Your task to perform on an android device: turn on location history Image 0: 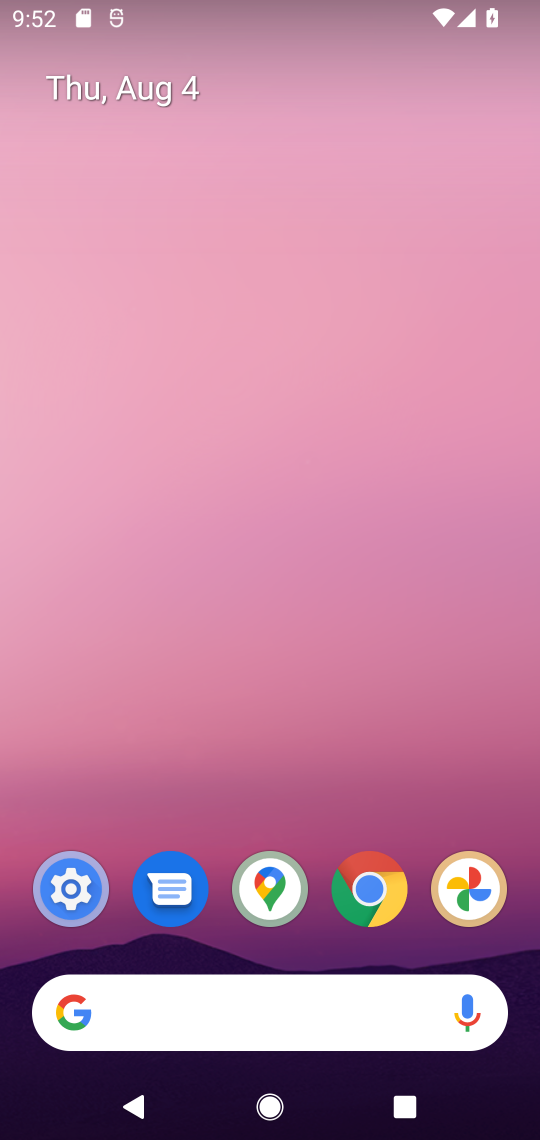
Step 0: press home button
Your task to perform on an android device: turn on location history Image 1: 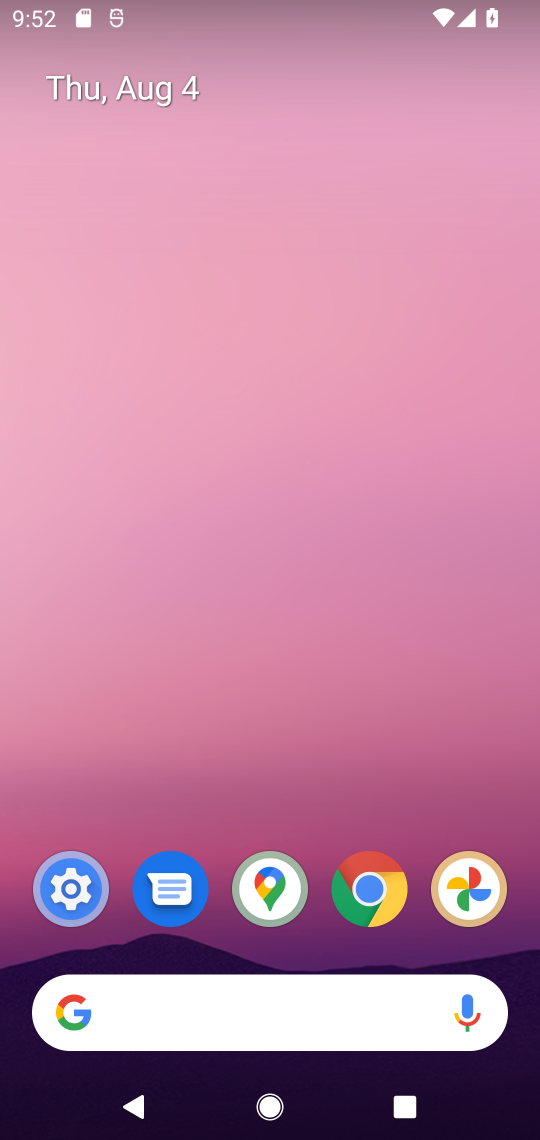
Step 1: drag from (317, 782) to (331, 231)
Your task to perform on an android device: turn on location history Image 2: 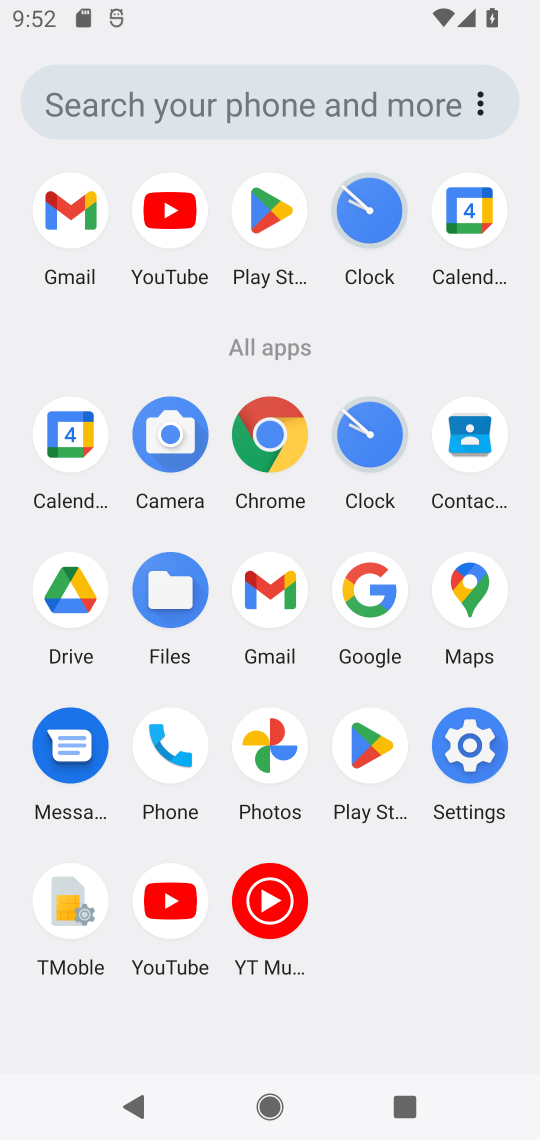
Step 2: click (466, 749)
Your task to perform on an android device: turn on location history Image 3: 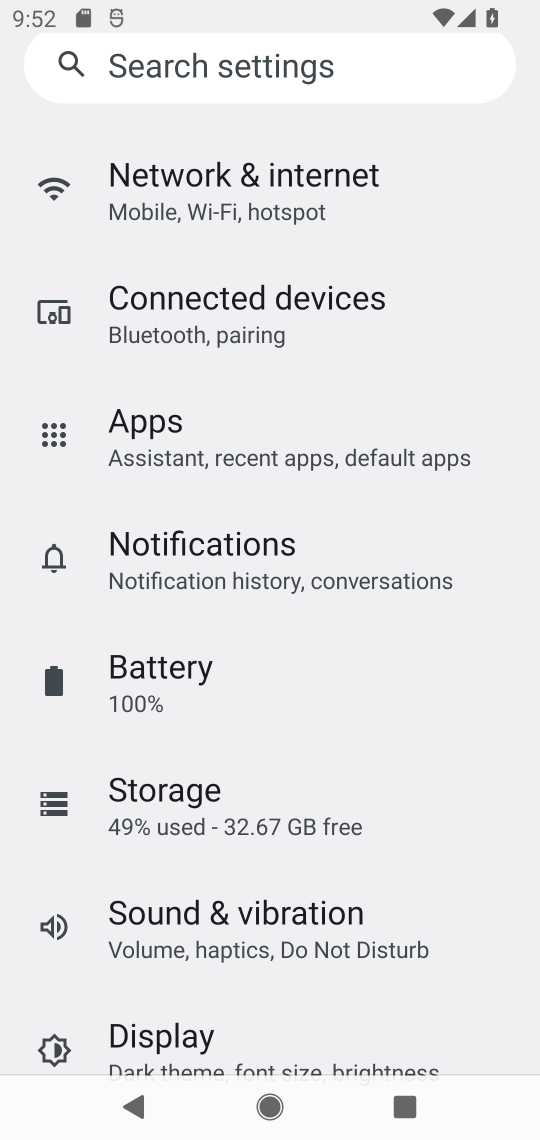
Step 3: drag from (461, 296) to (463, 619)
Your task to perform on an android device: turn on location history Image 4: 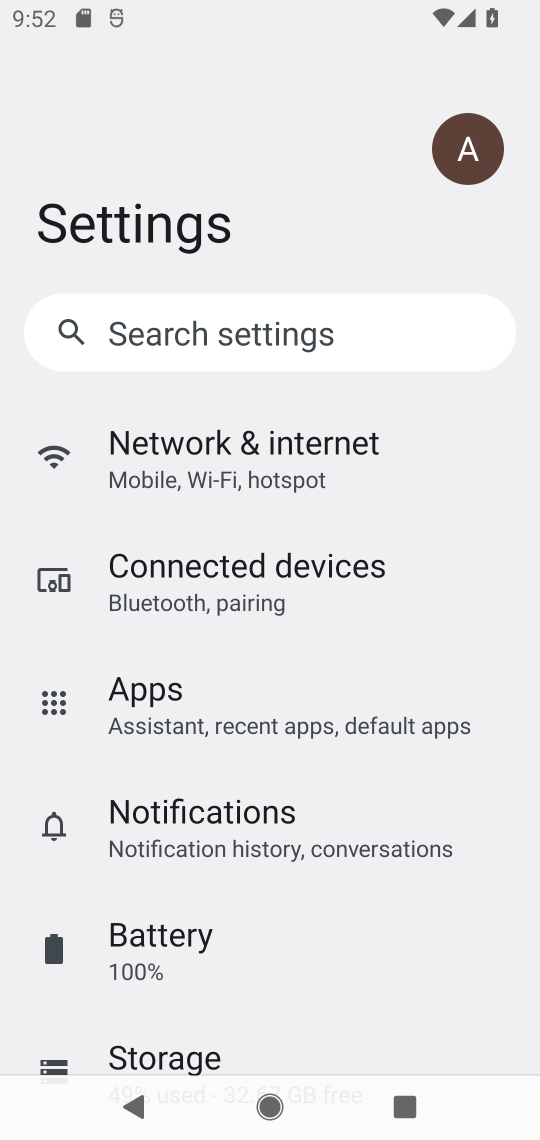
Step 4: drag from (481, 448) to (479, 782)
Your task to perform on an android device: turn on location history Image 5: 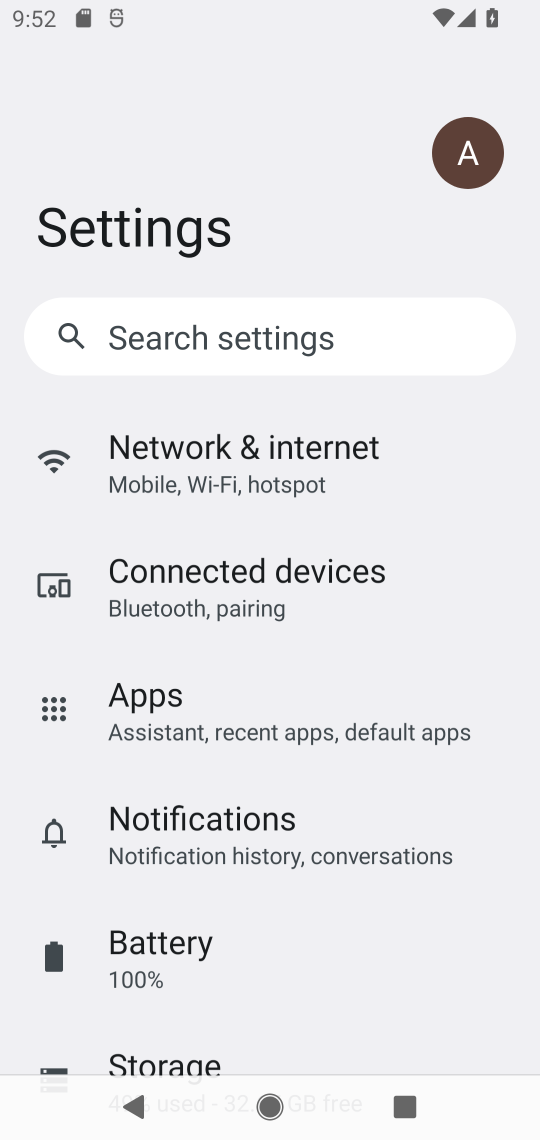
Step 5: drag from (484, 900) to (490, 650)
Your task to perform on an android device: turn on location history Image 6: 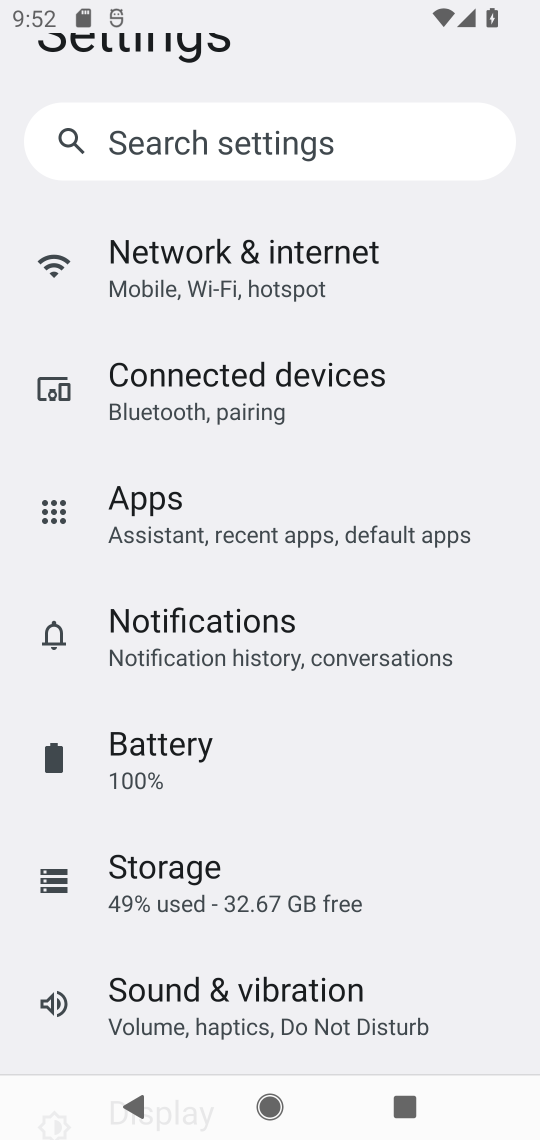
Step 6: drag from (475, 928) to (465, 714)
Your task to perform on an android device: turn on location history Image 7: 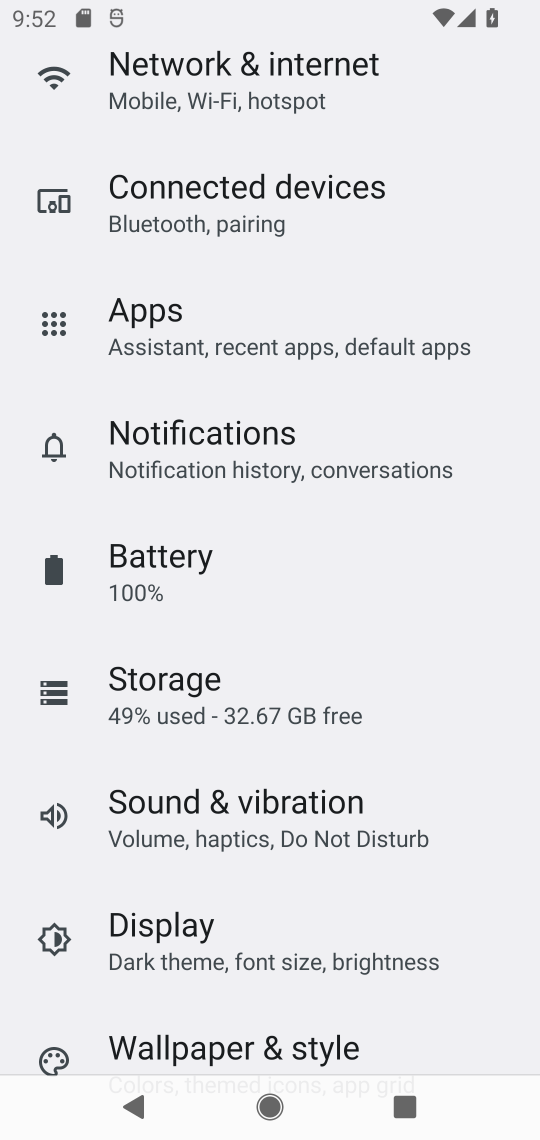
Step 7: drag from (446, 941) to (458, 722)
Your task to perform on an android device: turn on location history Image 8: 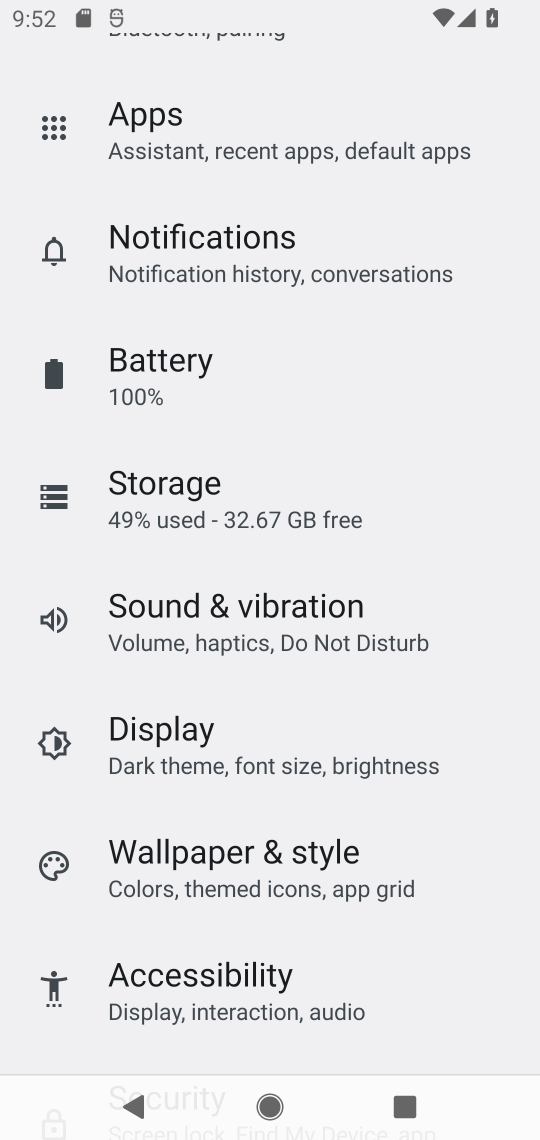
Step 8: drag from (446, 913) to (465, 604)
Your task to perform on an android device: turn on location history Image 9: 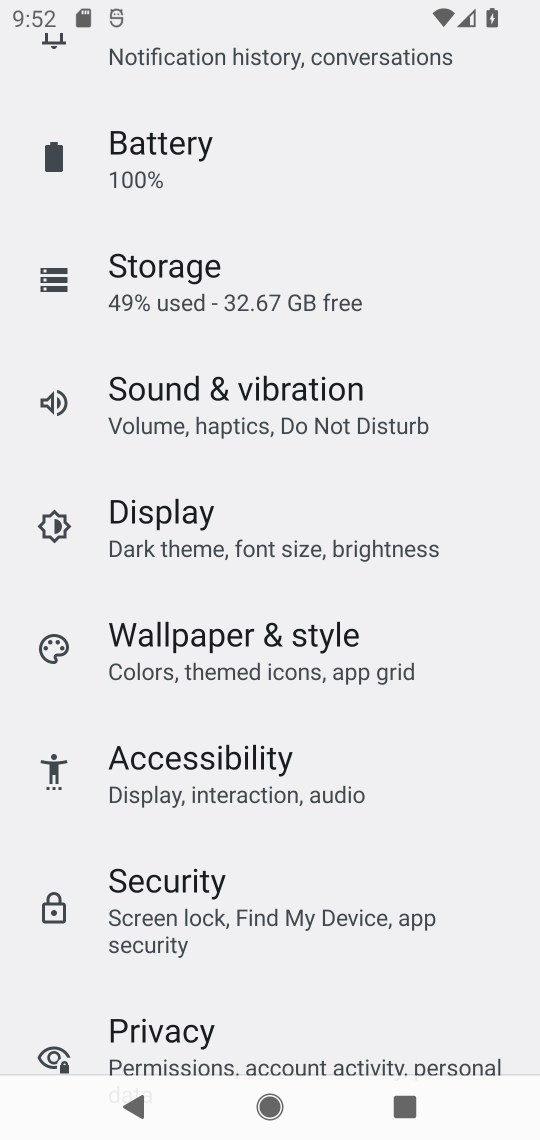
Step 9: drag from (469, 795) to (495, 504)
Your task to perform on an android device: turn on location history Image 10: 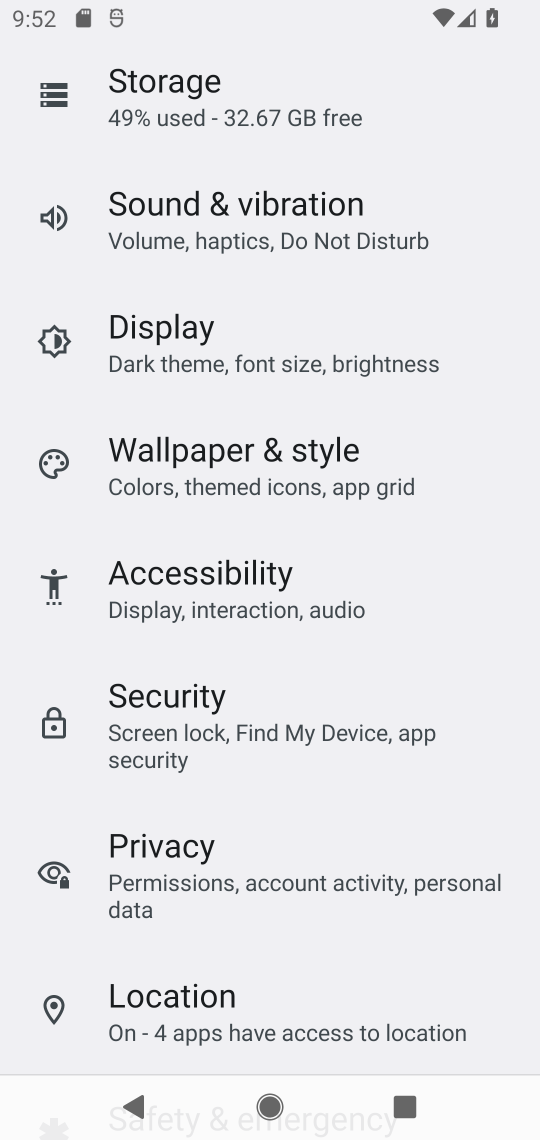
Step 10: drag from (448, 833) to (463, 531)
Your task to perform on an android device: turn on location history Image 11: 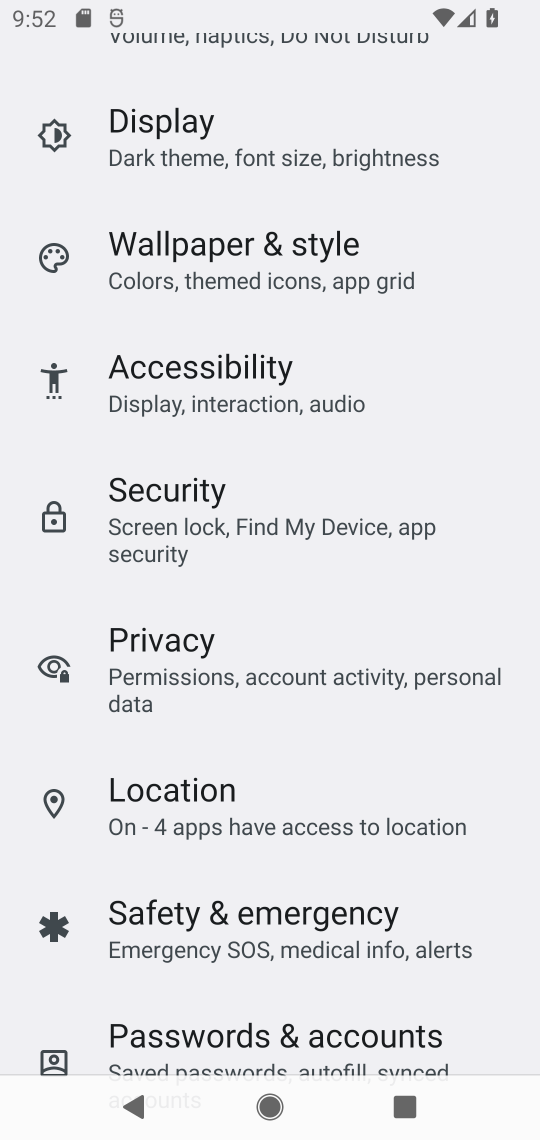
Step 11: drag from (477, 853) to (479, 611)
Your task to perform on an android device: turn on location history Image 12: 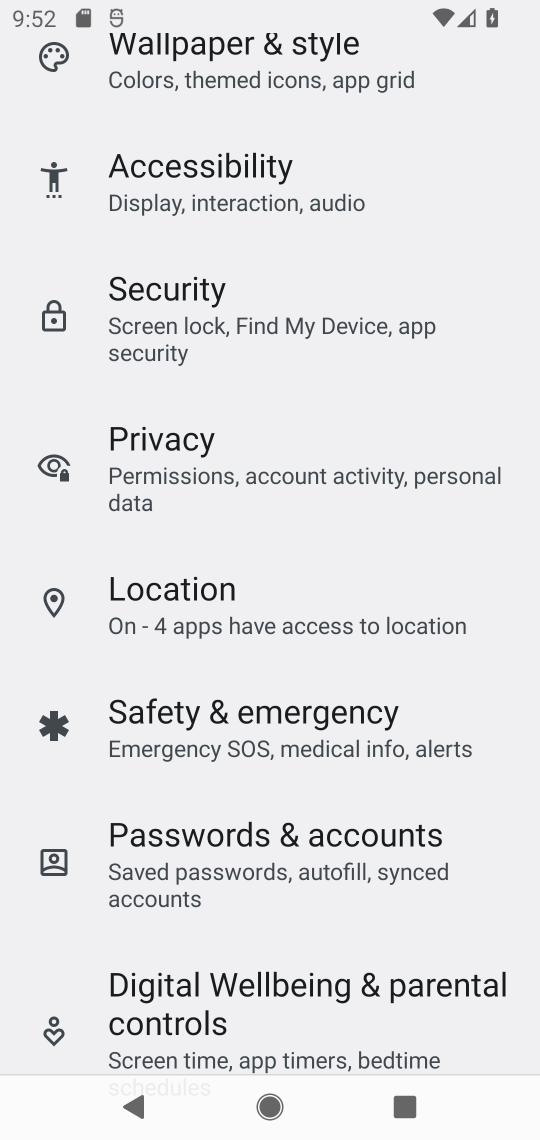
Step 12: click (364, 616)
Your task to perform on an android device: turn on location history Image 13: 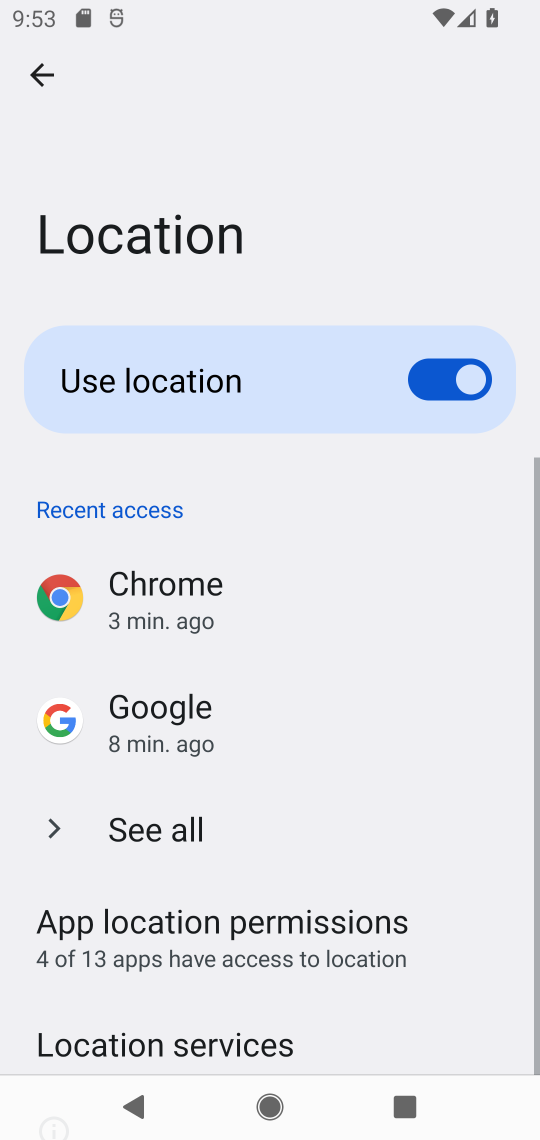
Step 13: drag from (349, 780) to (358, 576)
Your task to perform on an android device: turn on location history Image 14: 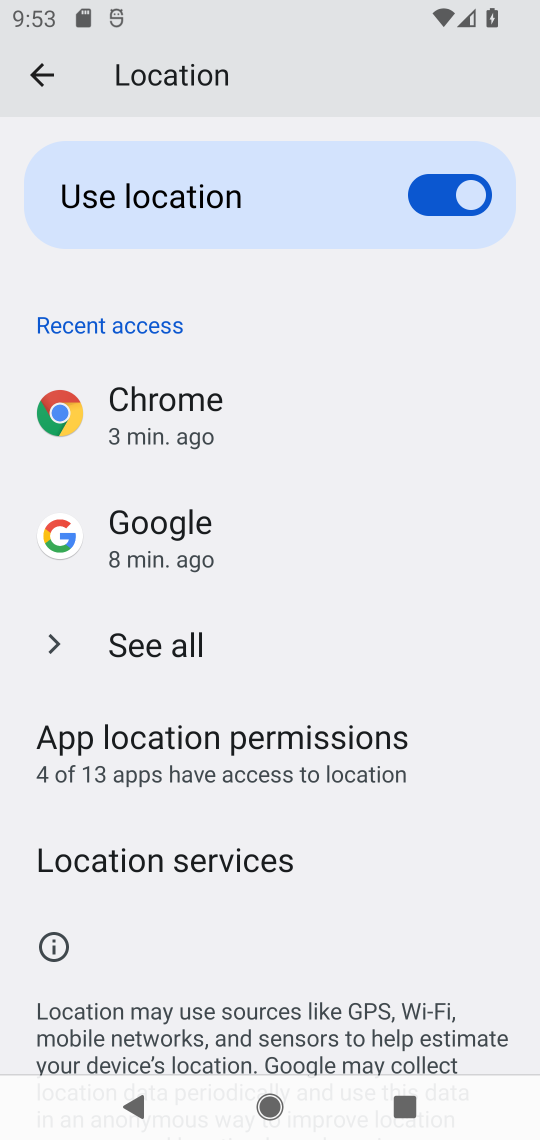
Step 14: click (298, 860)
Your task to perform on an android device: turn on location history Image 15: 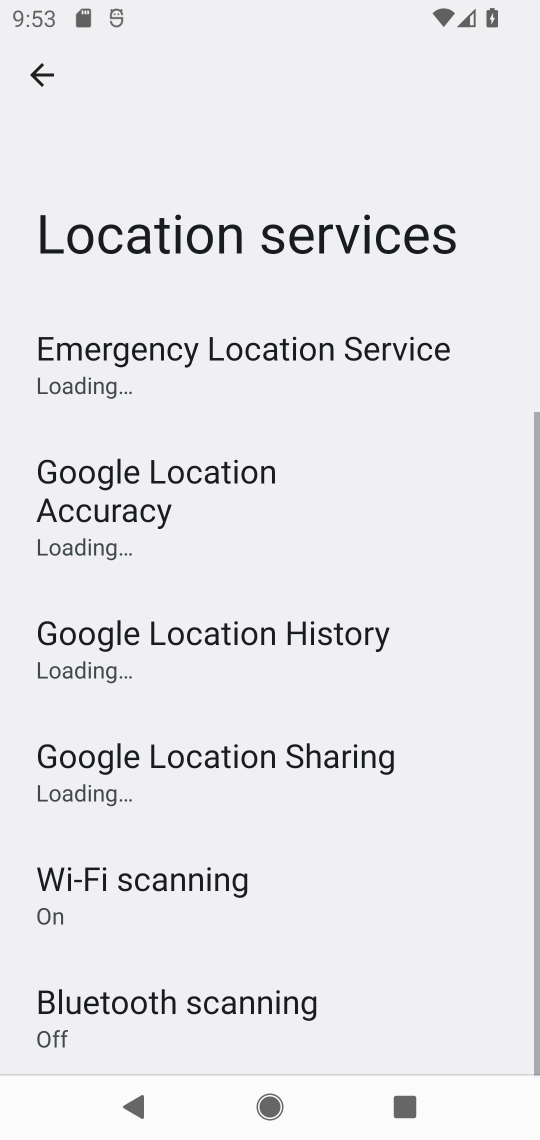
Step 15: drag from (412, 886) to (418, 723)
Your task to perform on an android device: turn on location history Image 16: 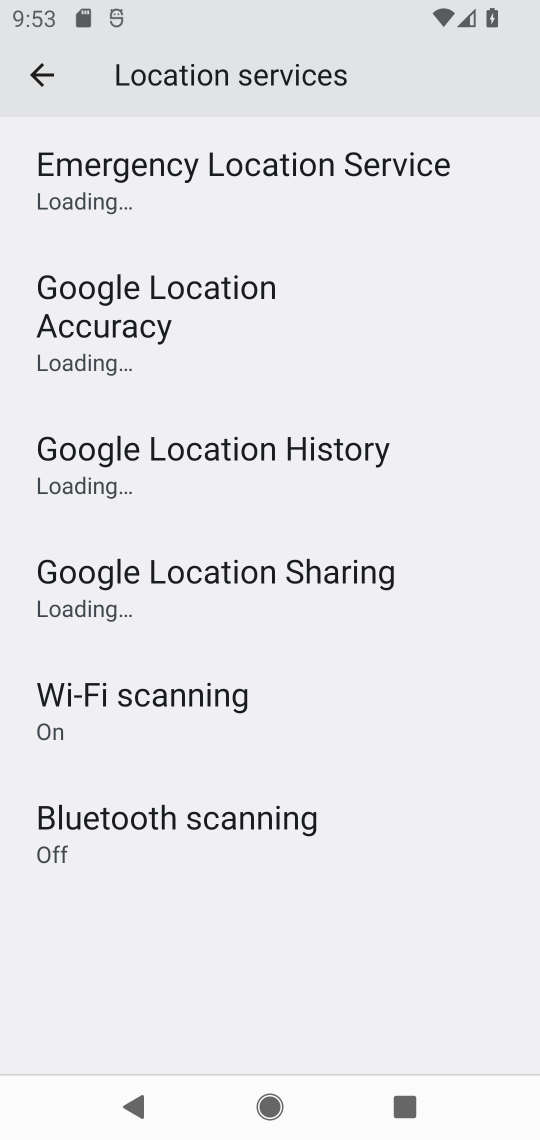
Step 16: drag from (418, 842) to (435, 582)
Your task to perform on an android device: turn on location history Image 17: 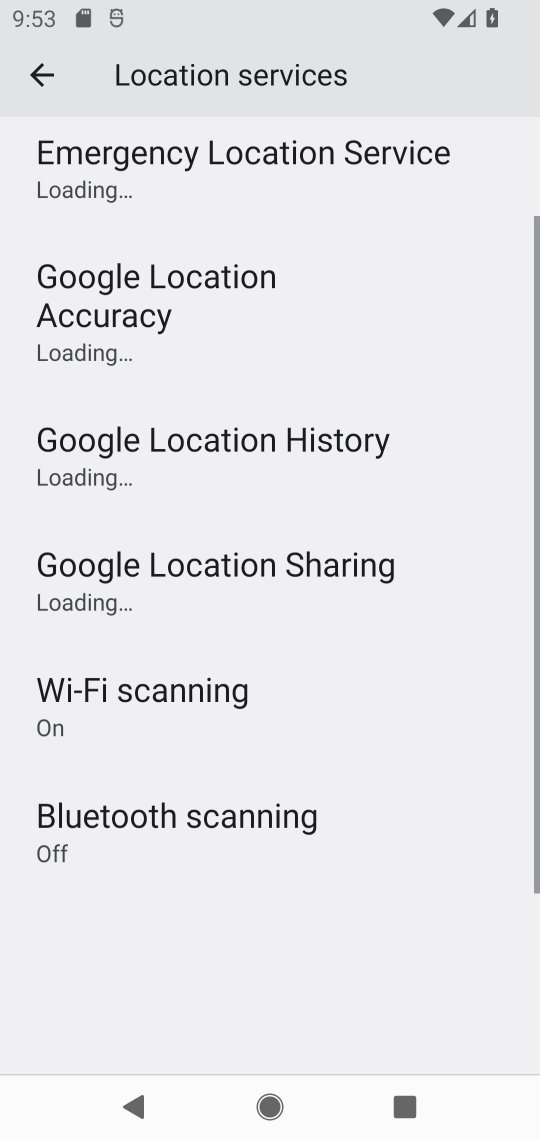
Step 17: drag from (446, 410) to (449, 651)
Your task to perform on an android device: turn on location history Image 18: 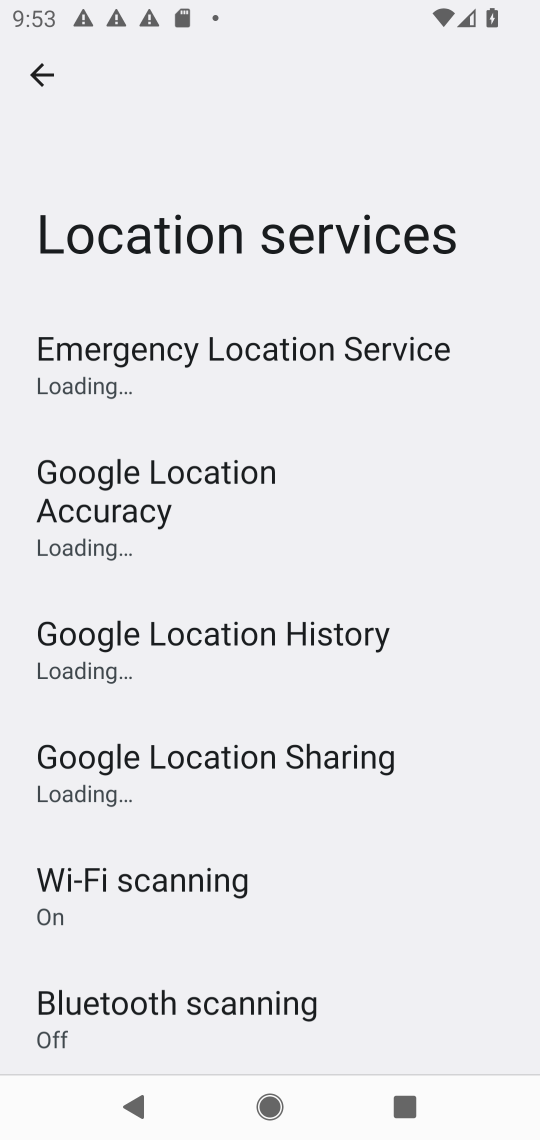
Step 18: click (334, 638)
Your task to perform on an android device: turn on location history Image 19: 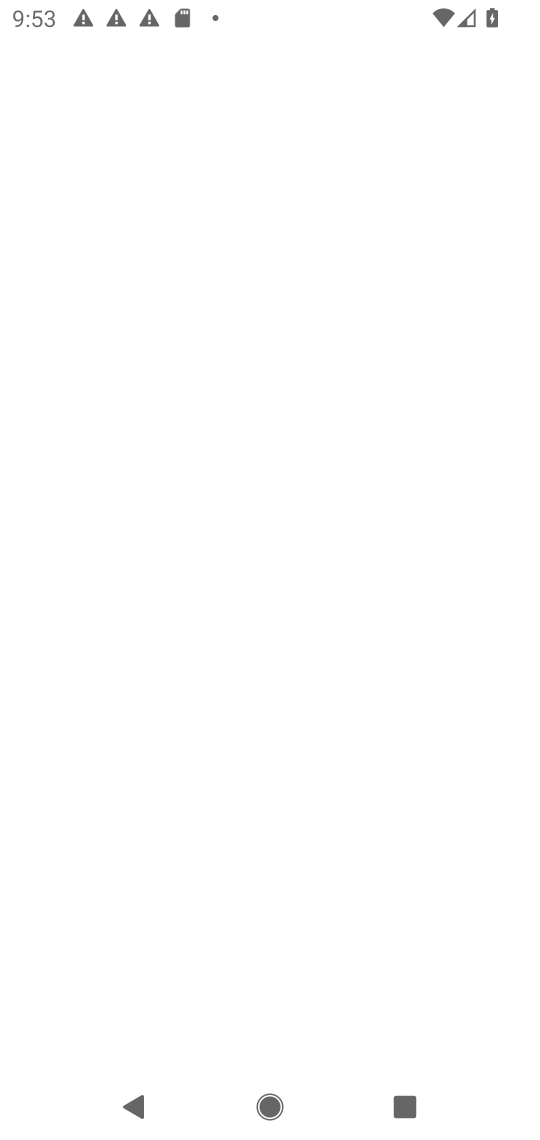
Step 19: task complete